Your task to perform on an android device: What's on my calendar tomorrow? Image 0: 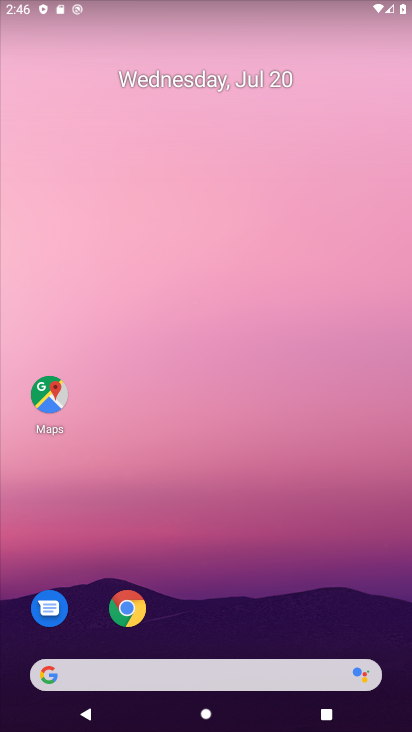
Step 0: drag from (265, 574) to (154, 100)
Your task to perform on an android device: What's on my calendar tomorrow? Image 1: 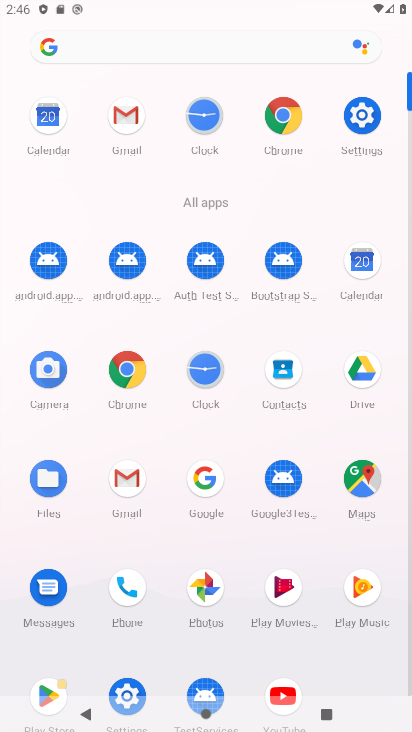
Step 1: click (378, 254)
Your task to perform on an android device: What's on my calendar tomorrow? Image 2: 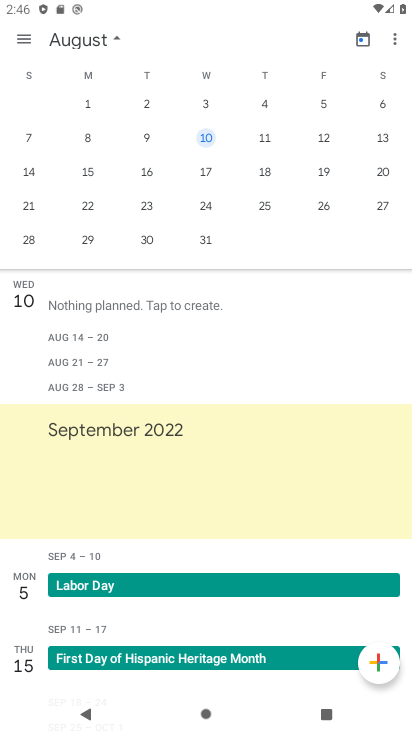
Step 2: click (86, 36)
Your task to perform on an android device: What's on my calendar tomorrow? Image 3: 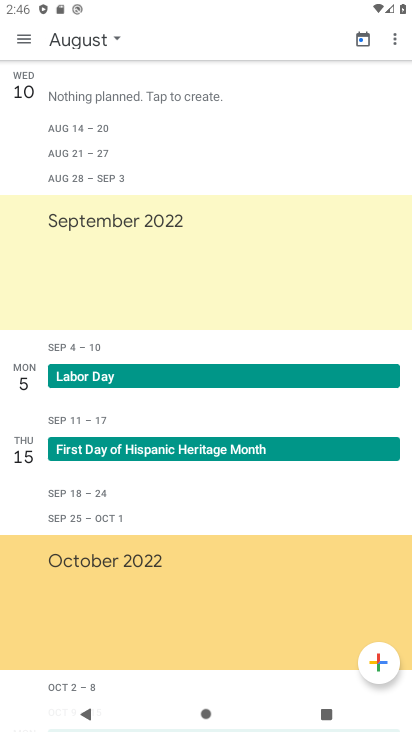
Step 3: click (78, 37)
Your task to perform on an android device: What's on my calendar tomorrow? Image 4: 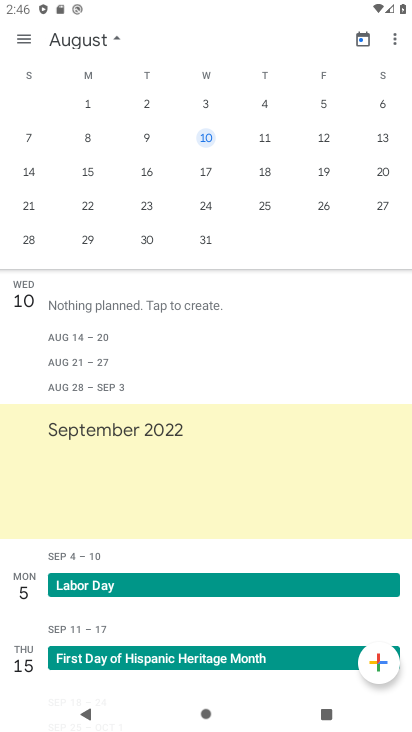
Step 4: click (11, 144)
Your task to perform on an android device: What's on my calendar tomorrow? Image 5: 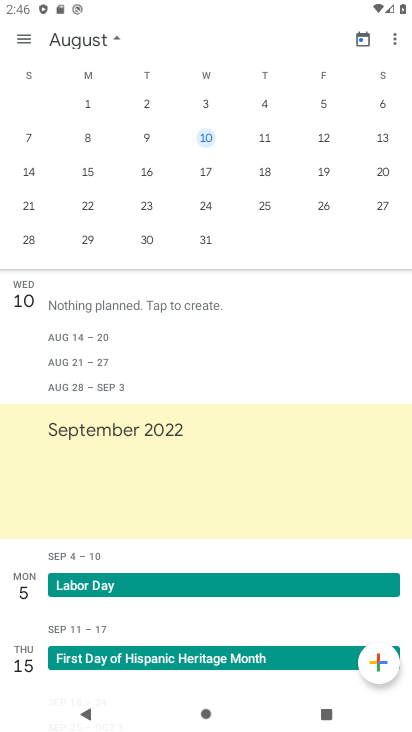
Step 5: drag from (113, 176) to (411, 162)
Your task to perform on an android device: What's on my calendar tomorrow? Image 6: 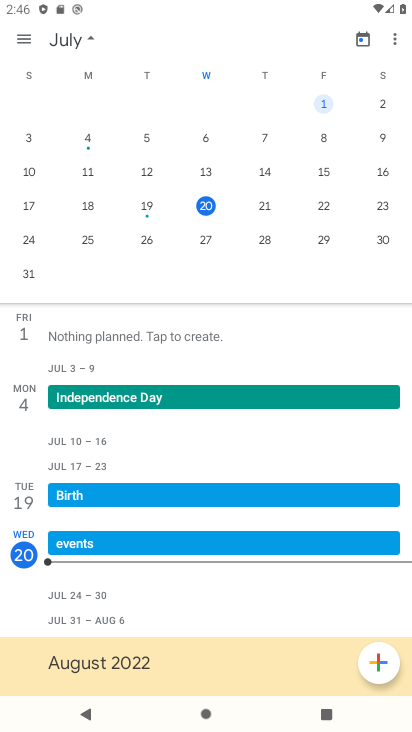
Step 6: click (261, 200)
Your task to perform on an android device: What's on my calendar tomorrow? Image 7: 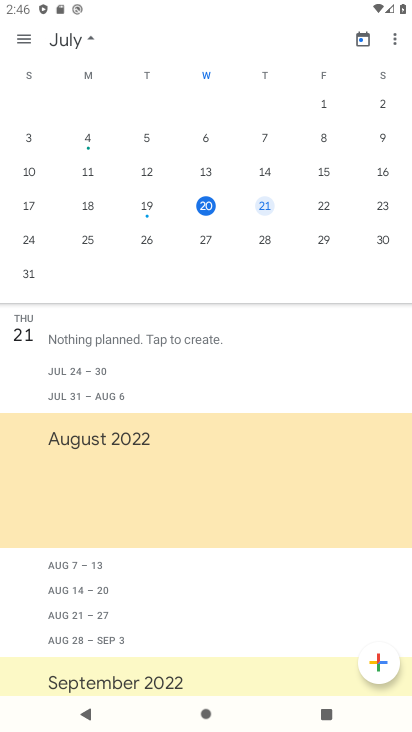
Step 7: task complete